Your task to perform on an android device: turn on translation in the chrome app Image 0: 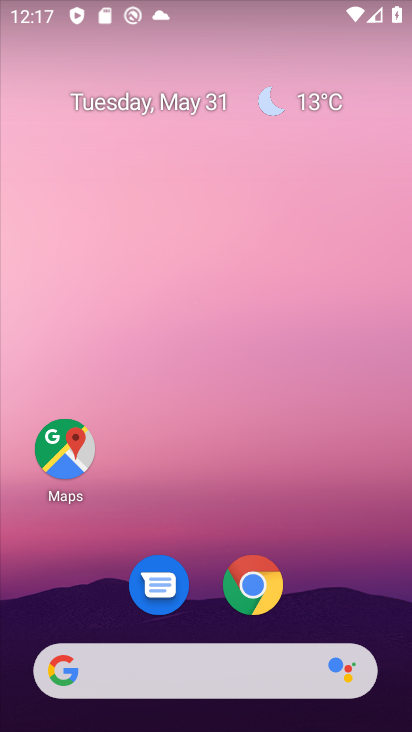
Step 0: click (259, 577)
Your task to perform on an android device: turn on translation in the chrome app Image 1: 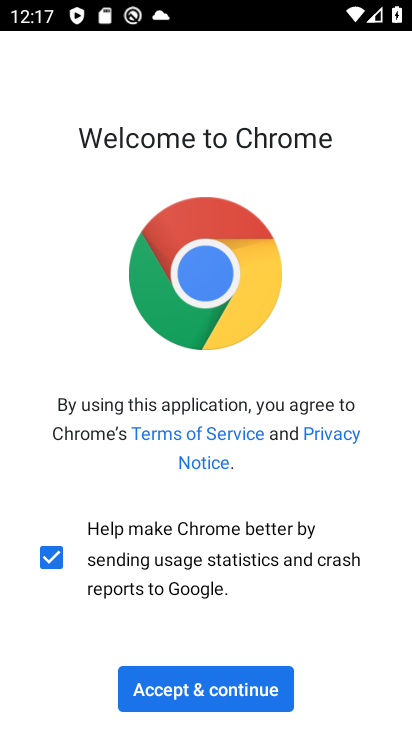
Step 1: click (283, 688)
Your task to perform on an android device: turn on translation in the chrome app Image 2: 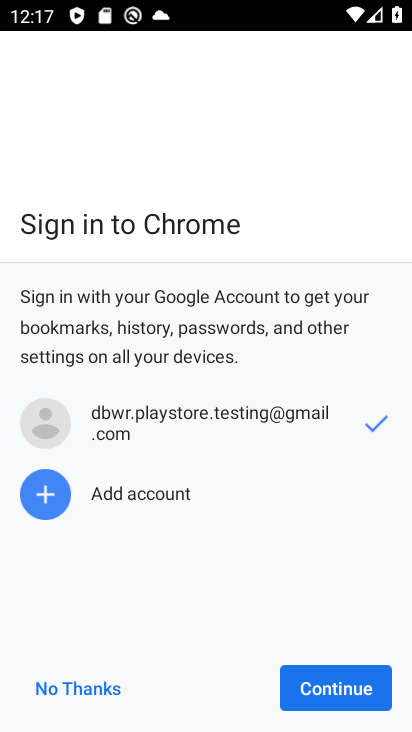
Step 2: click (326, 683)
Your task to perform on an android device: turn on translation in the chrome app Image 3: 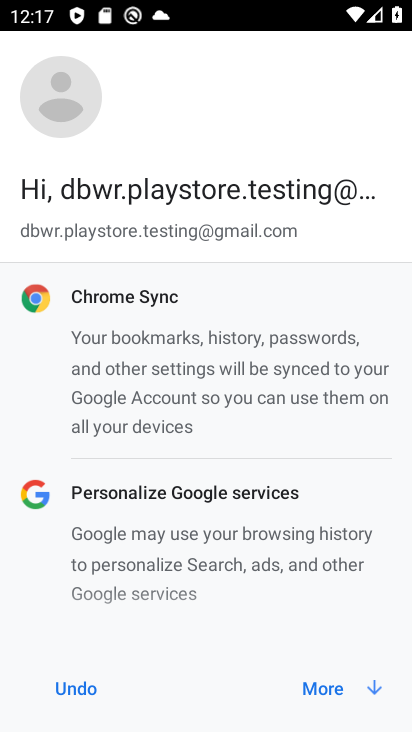
Step 3: click (326, 682)
Your task to perform on an android device: turn on translation in the chrome app Image 4: 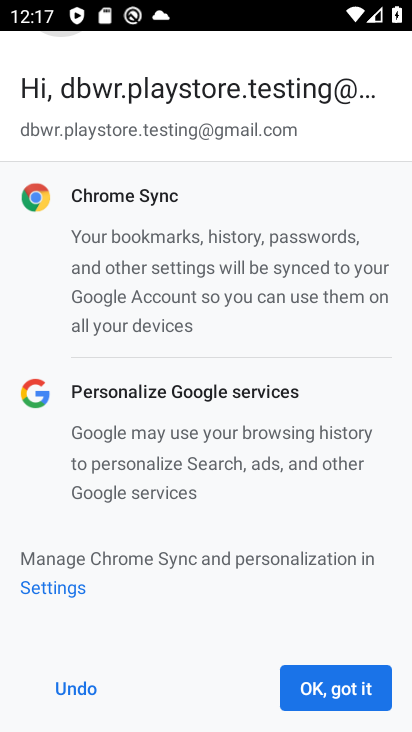
Step 4: click (326, 680)
Your task to perform on an android device: turn on translation in the chrome app Image 5: 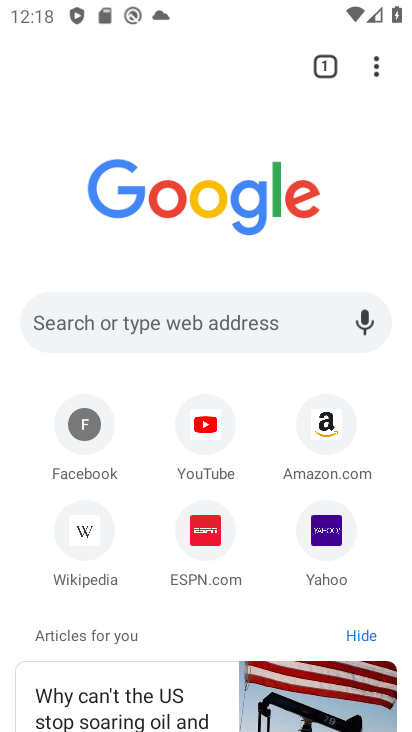
Step 5: click (373, 73)
Your task to perform on an android device: turn on translation in the chrome app Image 6: 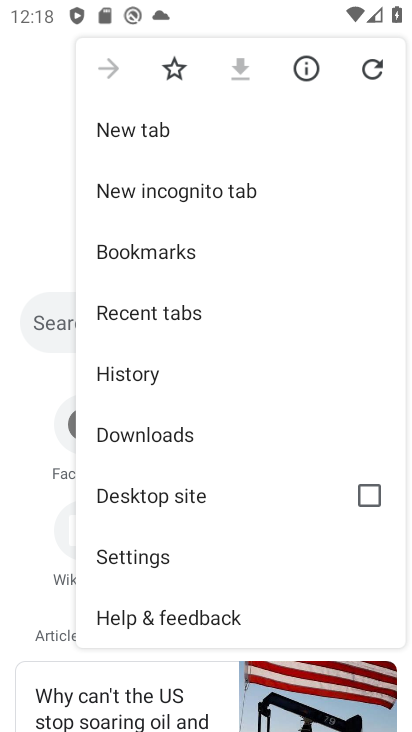
Step 6: click (209, 552)
Your task to perform on an android device: turn on translation in the chrome app Image 7: 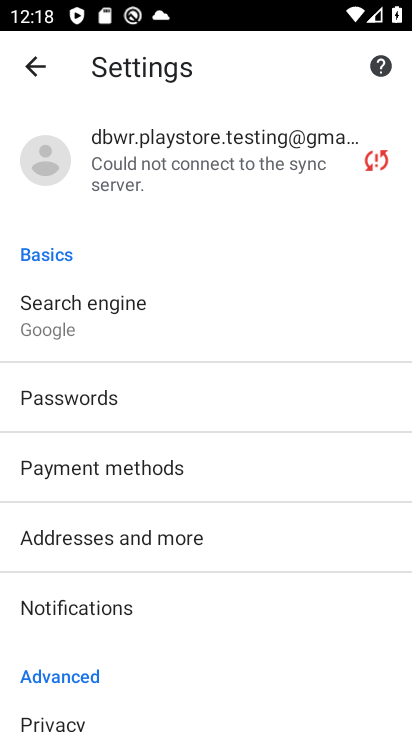
Step 7: drag from (254, 578) to (321, 263)
Your task to perform on an android device: turn on translation in the chrome app Image 8: 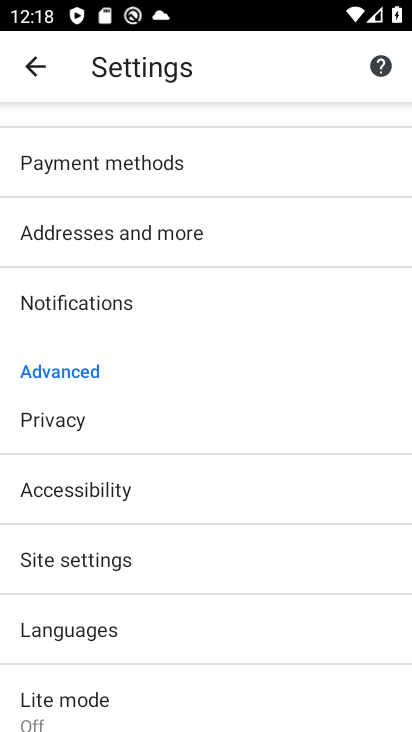
Step 8: click (250, 631)
Your task to perform on an android device: turn on translation in the chrome app Image 9: 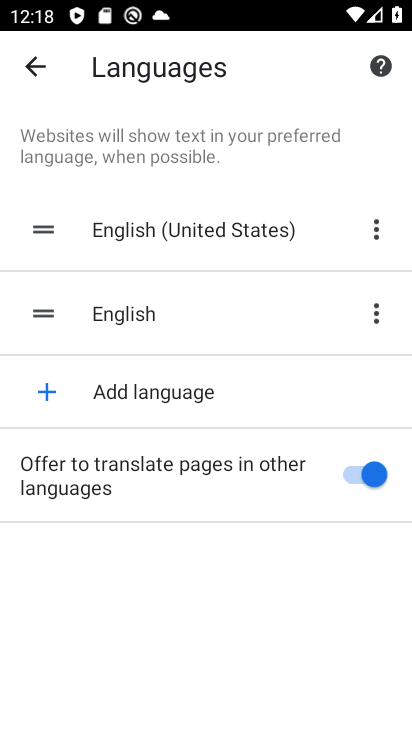
Step 9: task complete